Your task to perform on an android device: turn on the 12-hour format for clock Image 0: 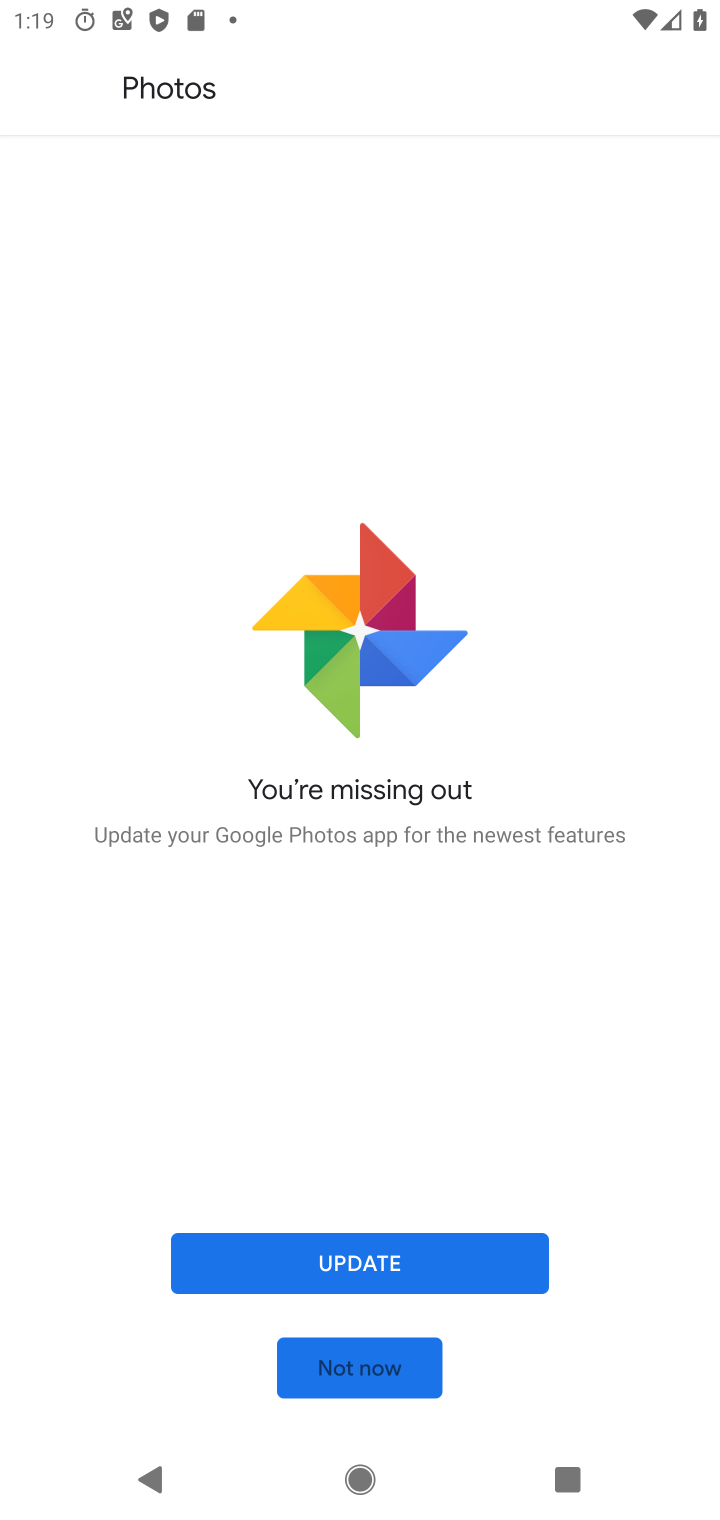
Step 0: press home button
Your task to perform on an android device: turn on the 12-hour format for clock Image 1: 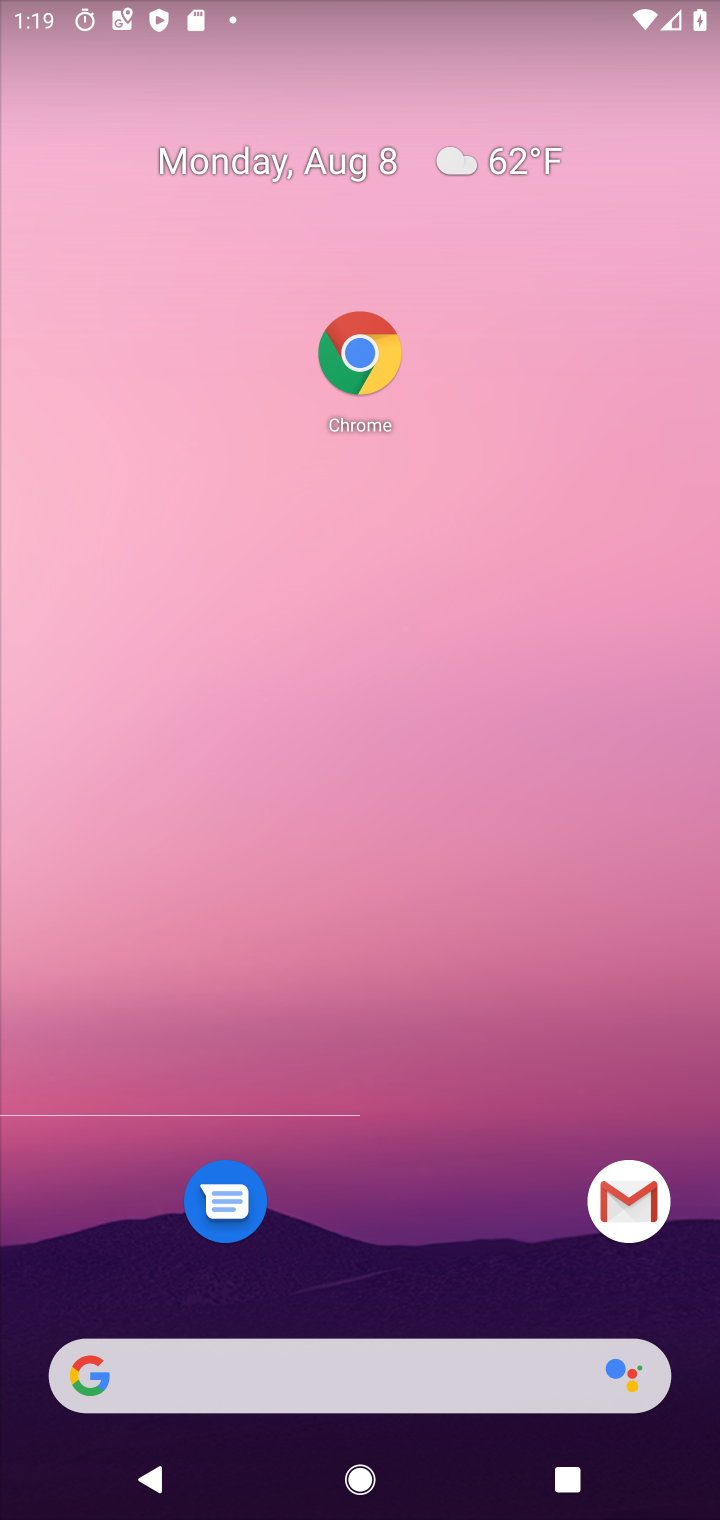
Step 1: drag from (475, 1393) to (326, 356)
Your task to perform on an android device: turn on the 12-hour format for clock Image 2: 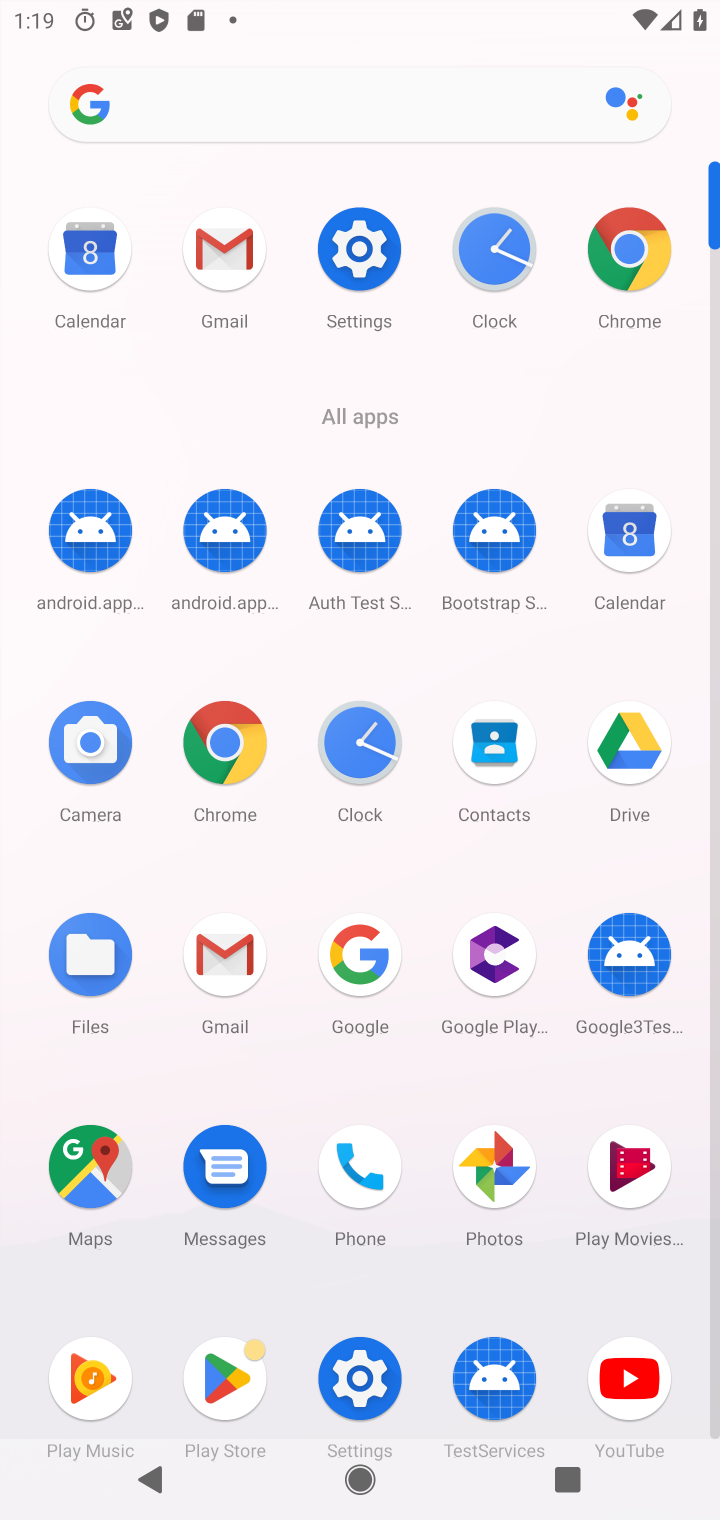
Step 2: click (345, 747)
Your task to perform on an android device: turn on the 12-hour format for clock Image 3: 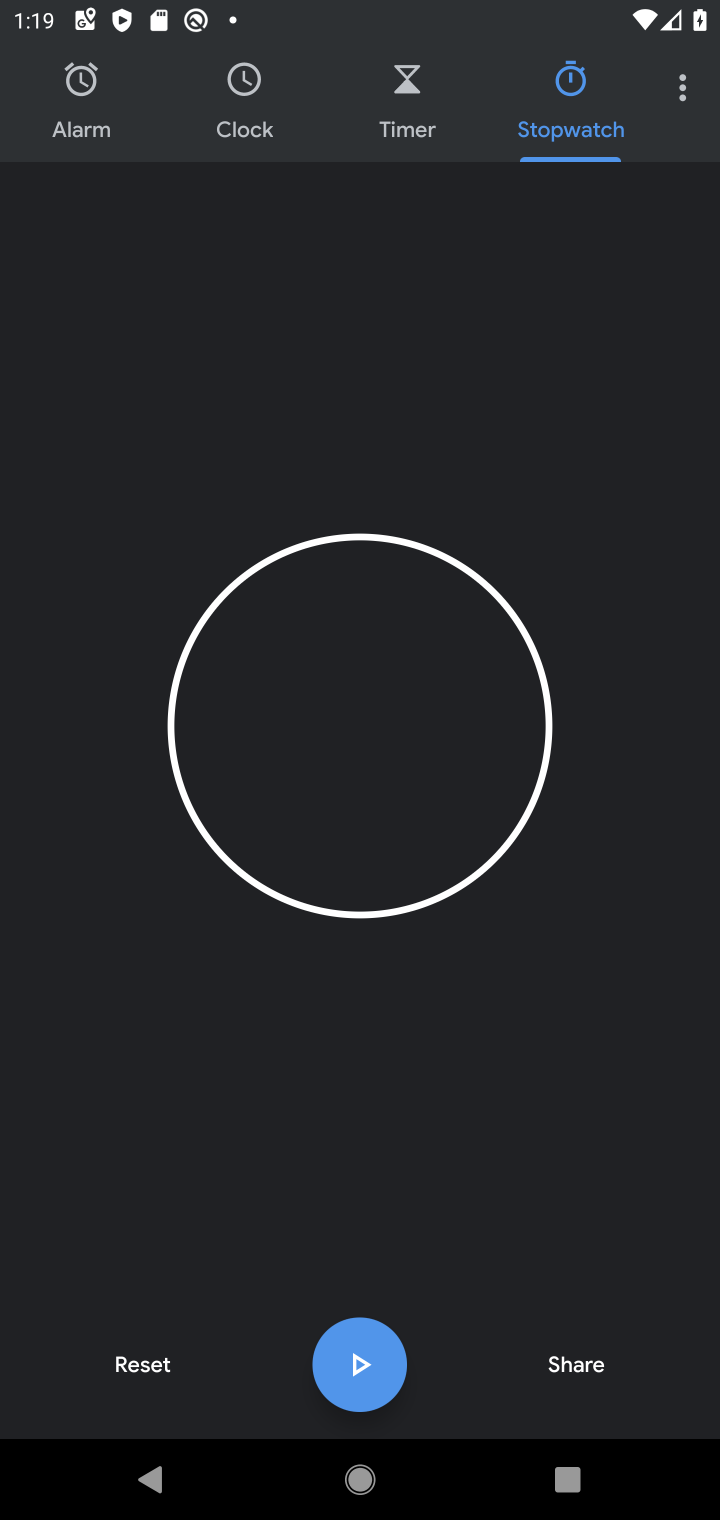
Step 3: click (673, 111)
Your task to perform on an android device: turn on the 12-hour format for clock Image 4: 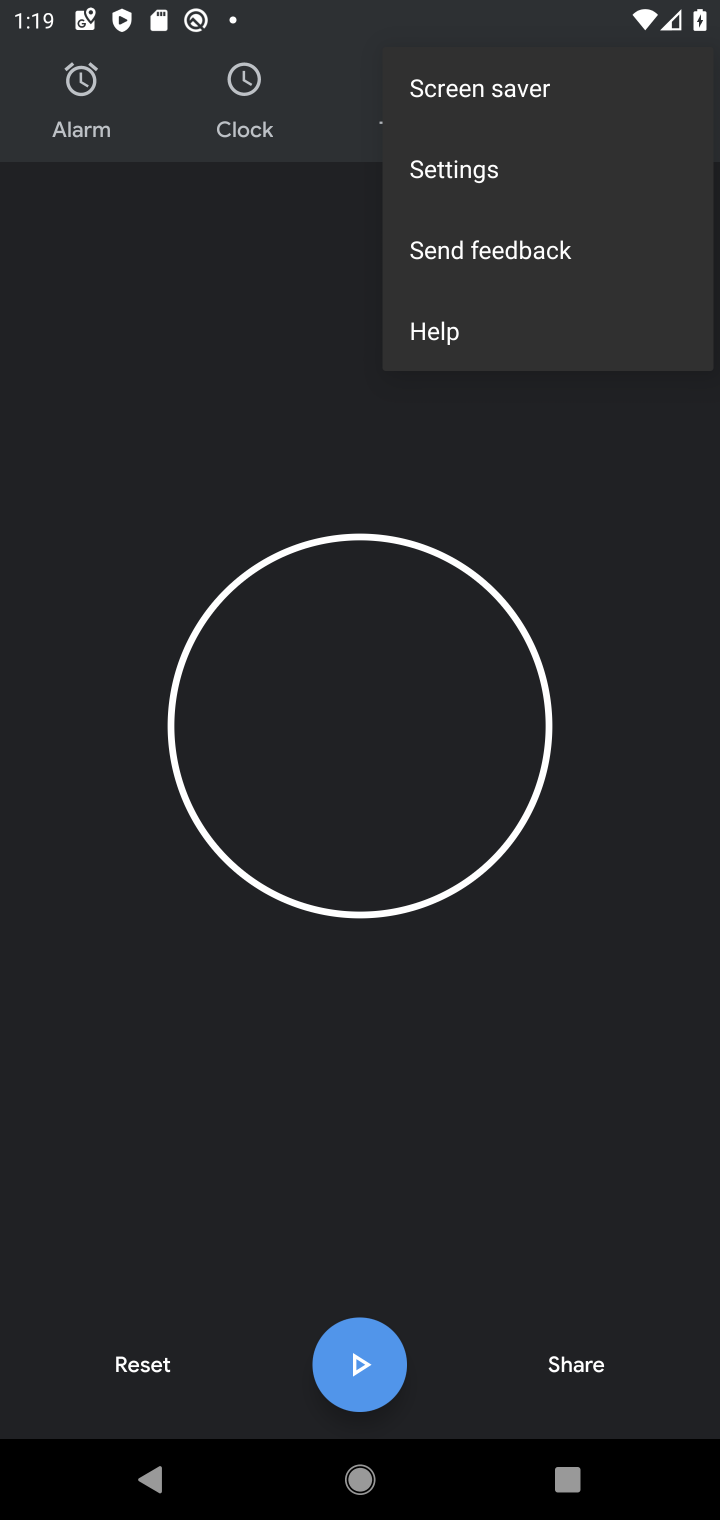
Step 4: click (482, 181)
Your task to perform on an android device: turn on the 12-hour format for clock Image 5: 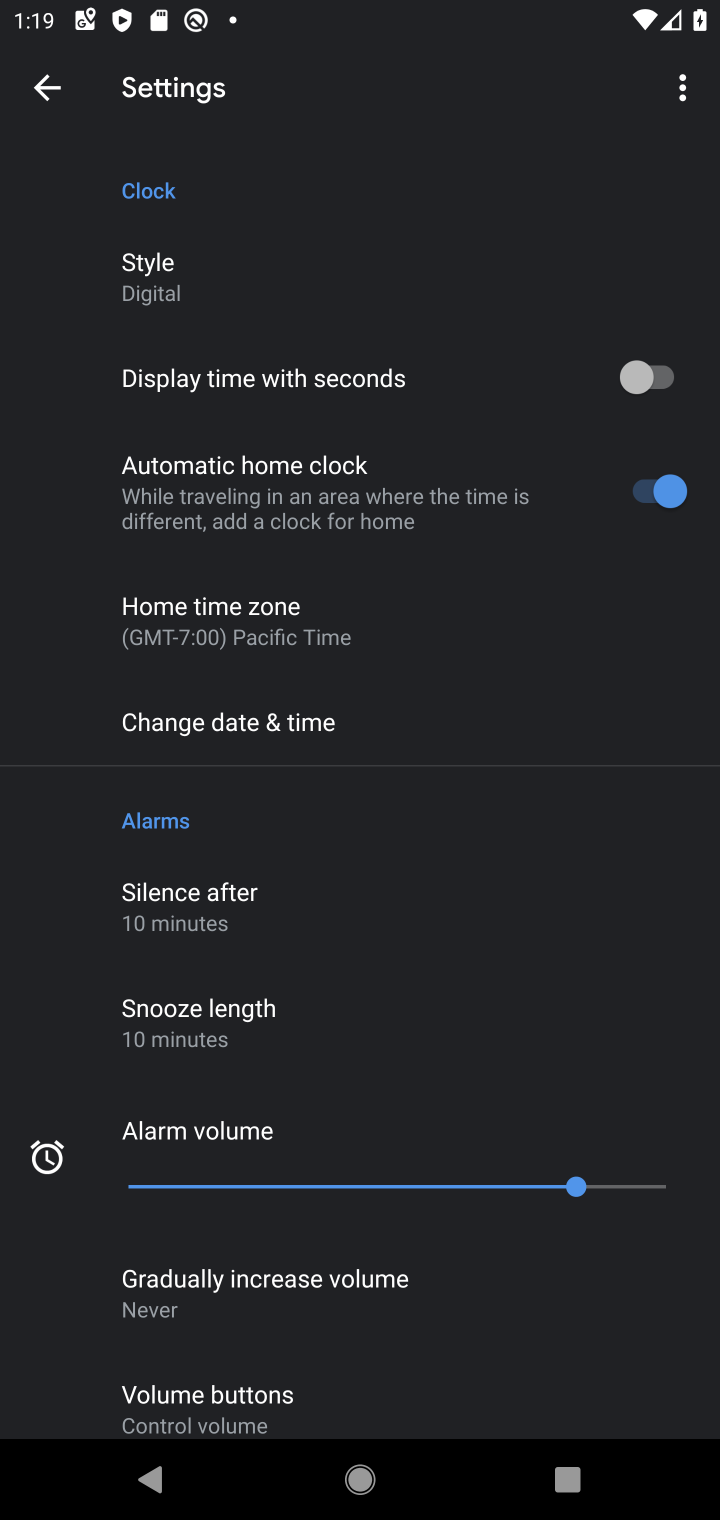
Step 5: click (300, 718)
Your task to perform on an android device: turn on the 12-hour format for clock Image 6: 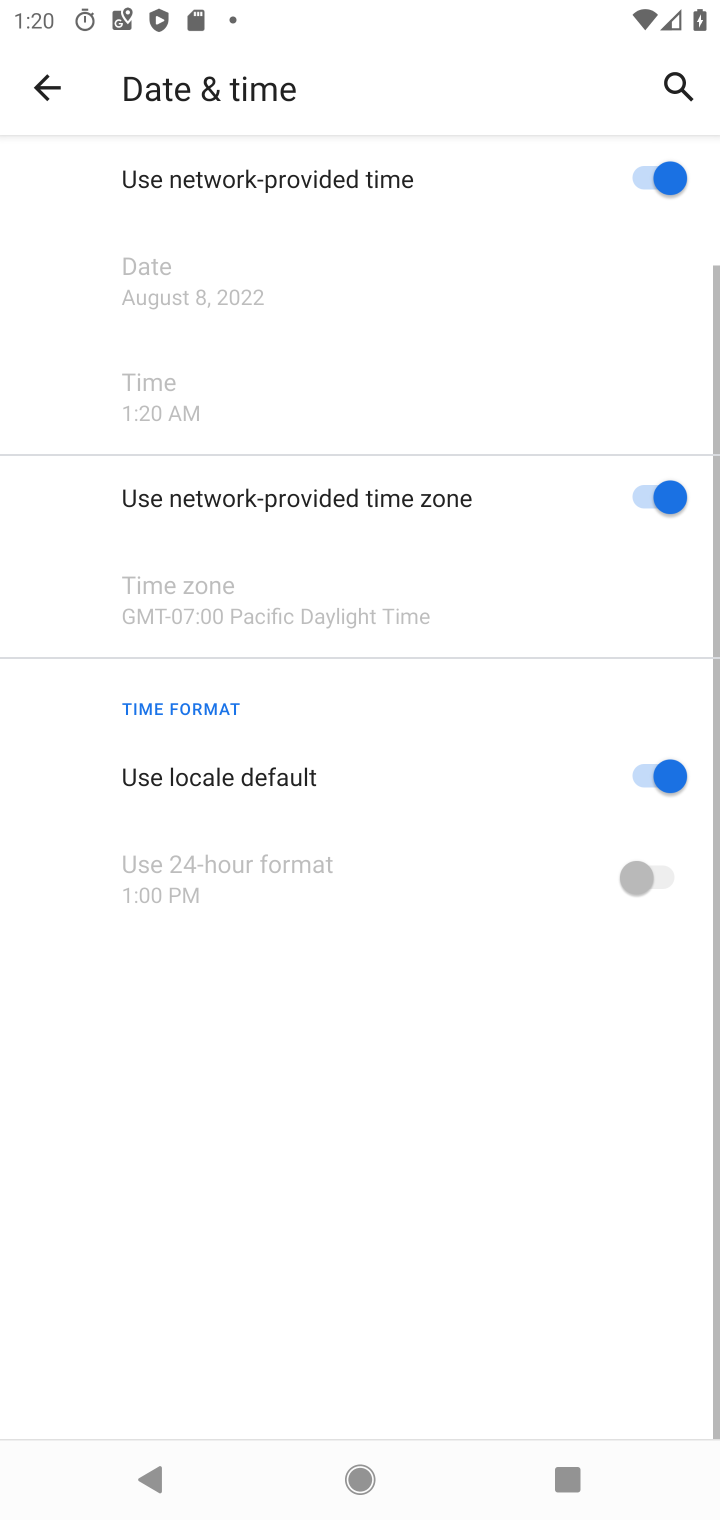
Step 6: click (662, 782)
Your task to perform on an android device: turn on the 12-hour format for clock Image 7: 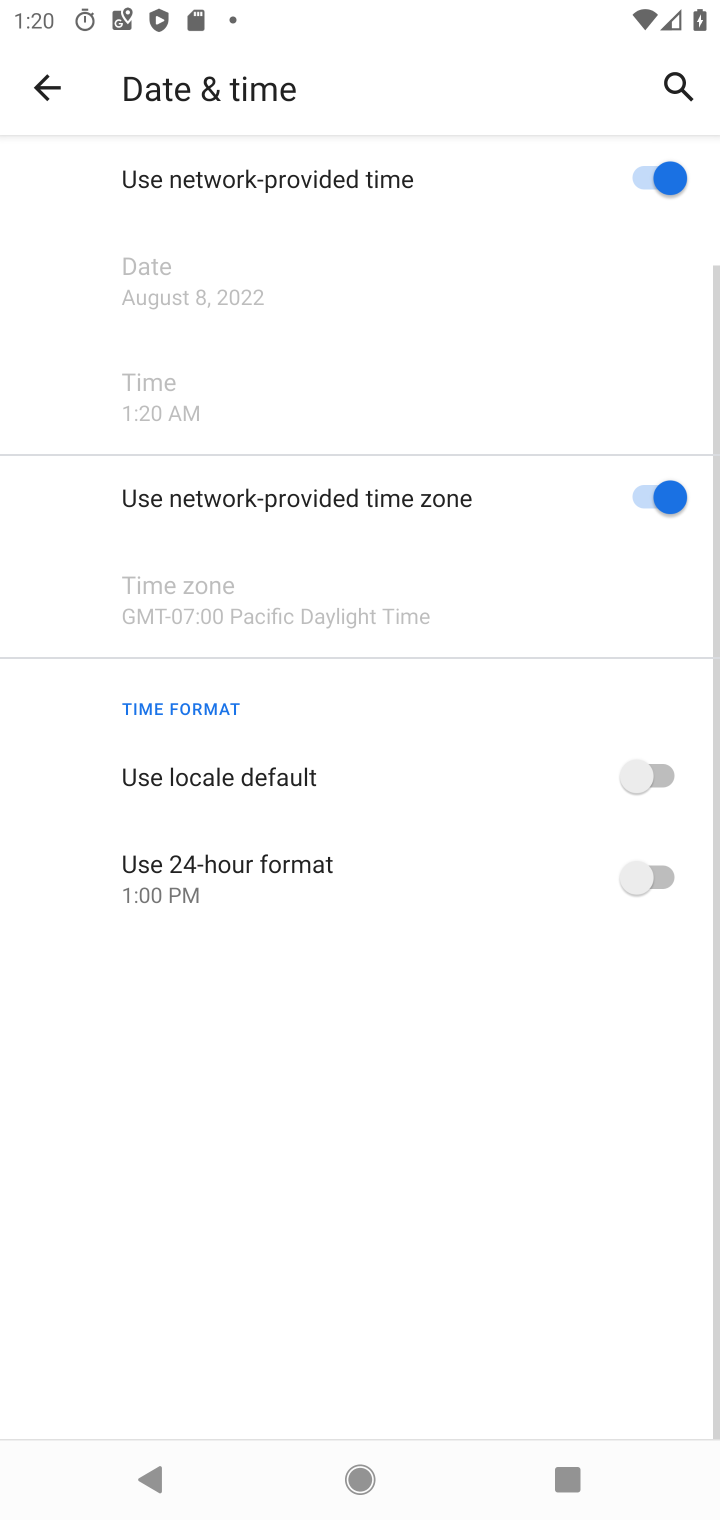
Step 7: click (662, 879)
Your task to perform on an android device: turn on the 12-hour format for clock Image 8: 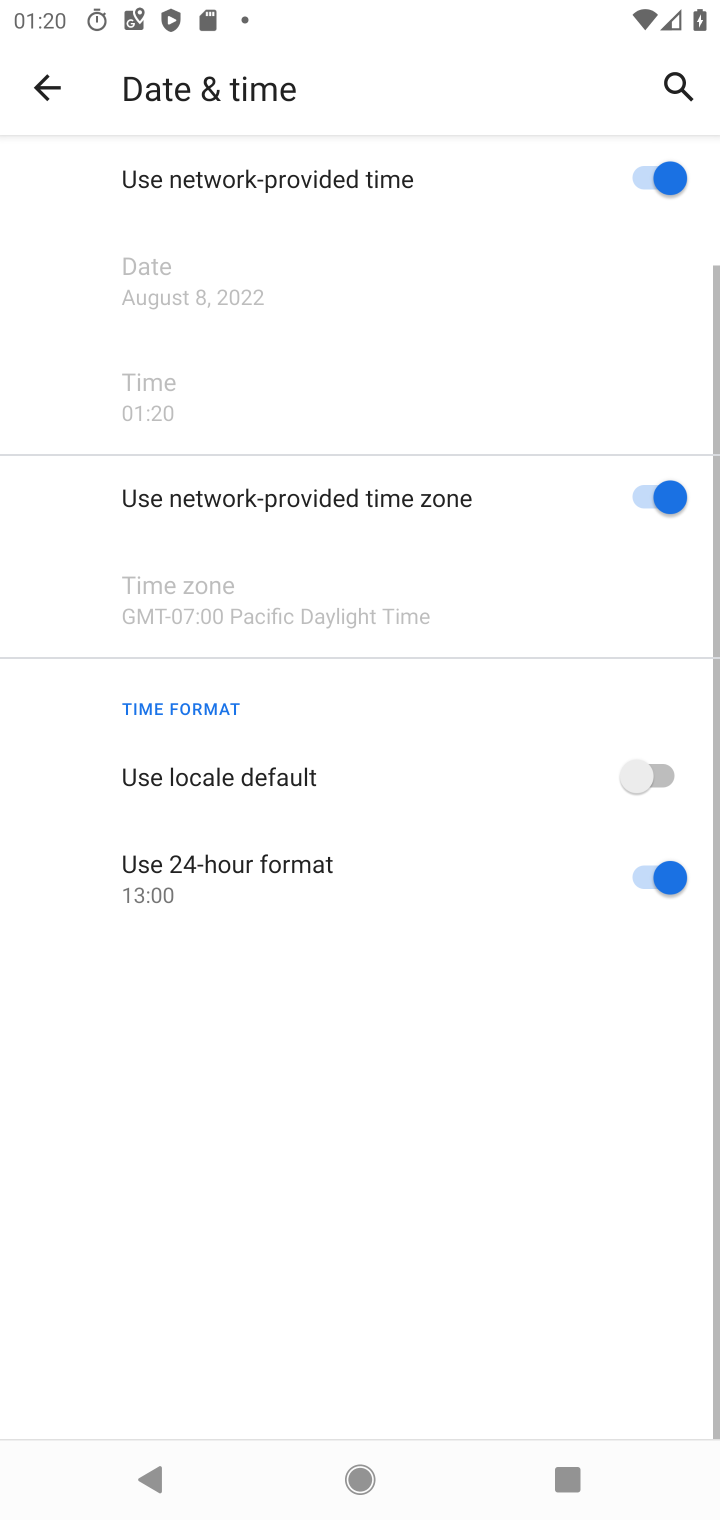
Step 8: click (662, 879)
Your task to perform on an android device: turn on the 12-hour format for clock Image 9: 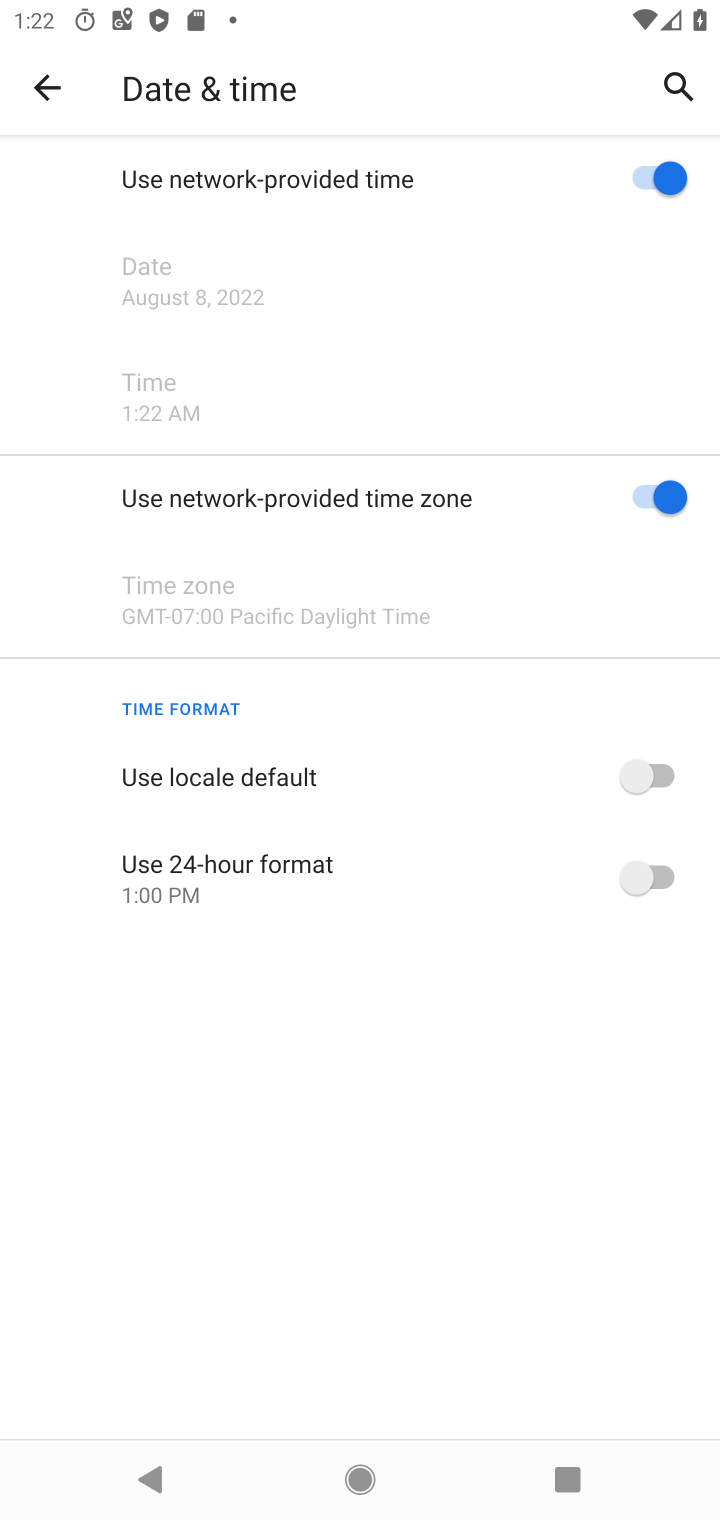
Step 9: task complete